Your task to perform on an android device: open sync settings in chrome Image 0: 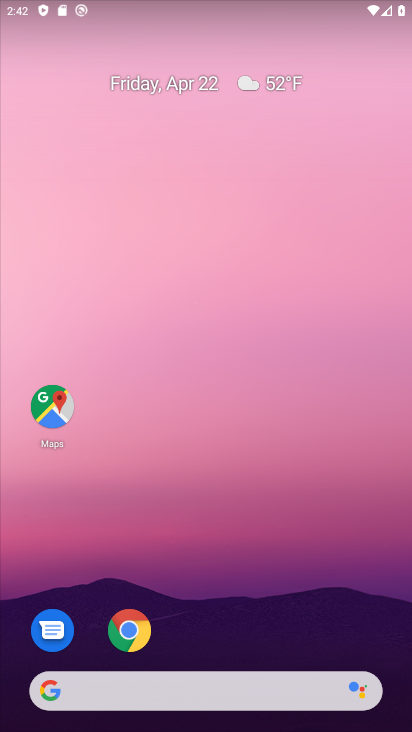
Step 0: click (125, 631)
Your task to perform on an android device: open sync settings in chrome Image 1: 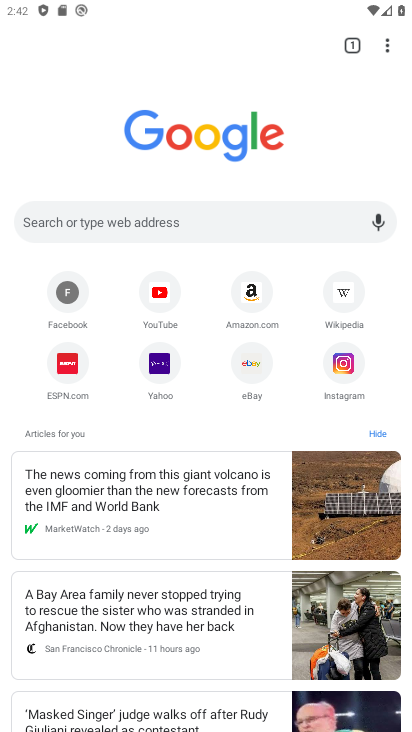
Step 1: click (386, 49)
Your task to perform on an android device: open sync settings in chrome Image 2: 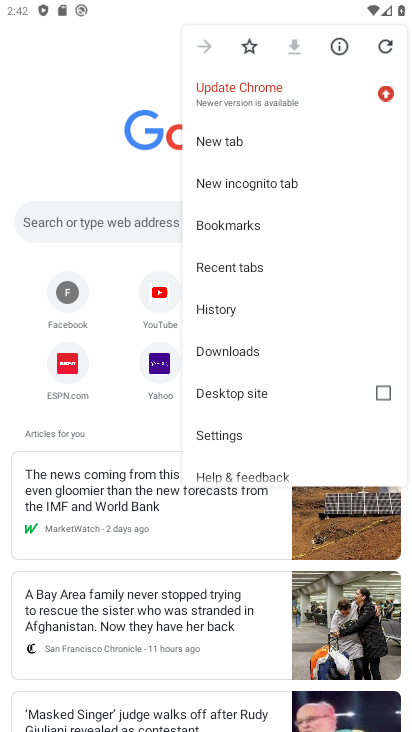
Step 2: click (223, 433)
Your task to perform on an android device: open sync settings in chrome Image 3: 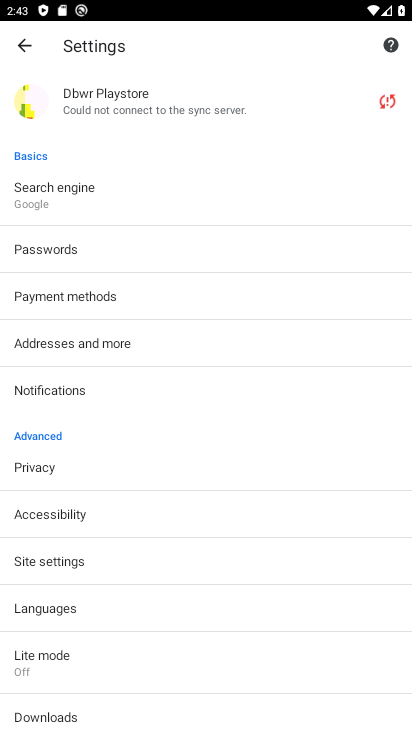
Step 3: click (101, 104)
Your task to perform on an android device: open sync settings in chrome Image 4: 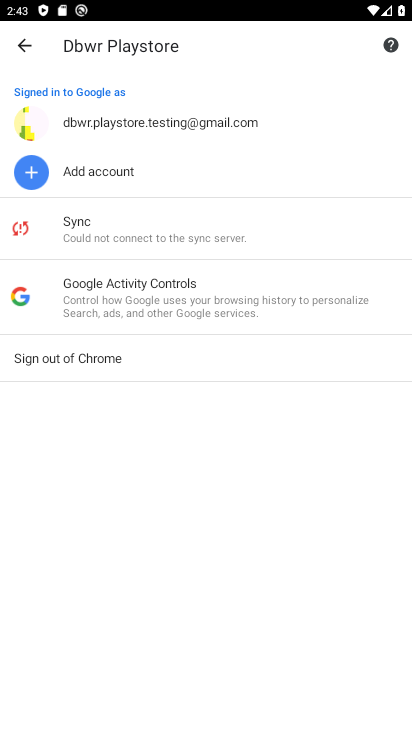
Step 4: click (82, 234)
Your task to perform on an android device: open sync settings in chrome Image 5: 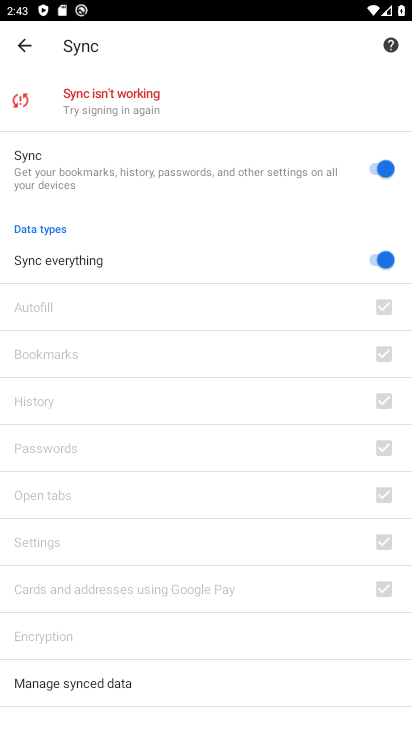
Step 5: task complete